Your task to perform on an android device: Go to network settings Image 0: 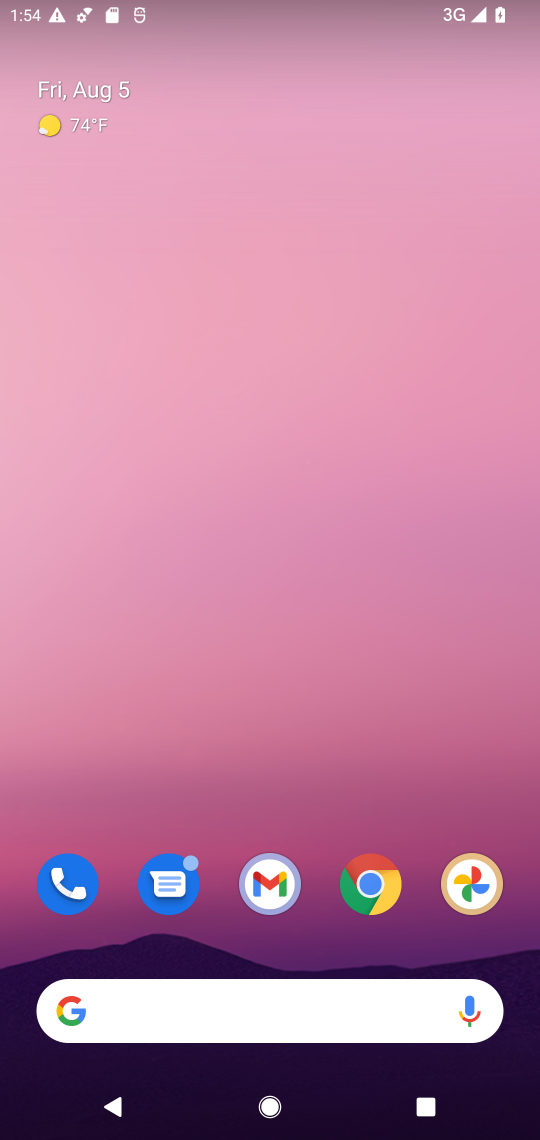
Step 0: drag from (458, 913) to (301, 56)
Your task to perform on an android device: Go to network settings Image 1: 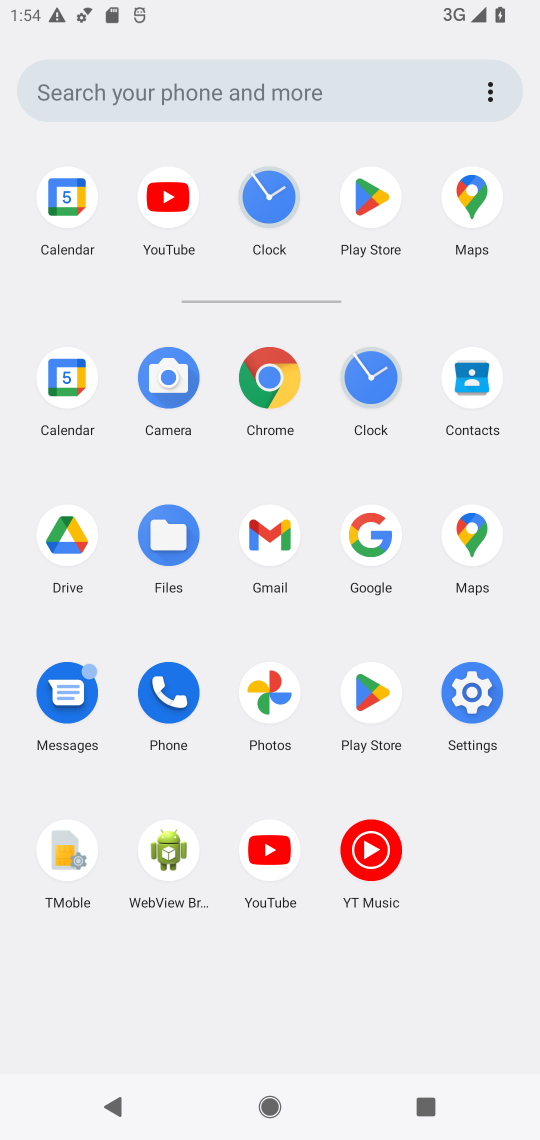
Step 1: click (494, 698)
Your task to perform on an android device: Go to network settings Image 2: 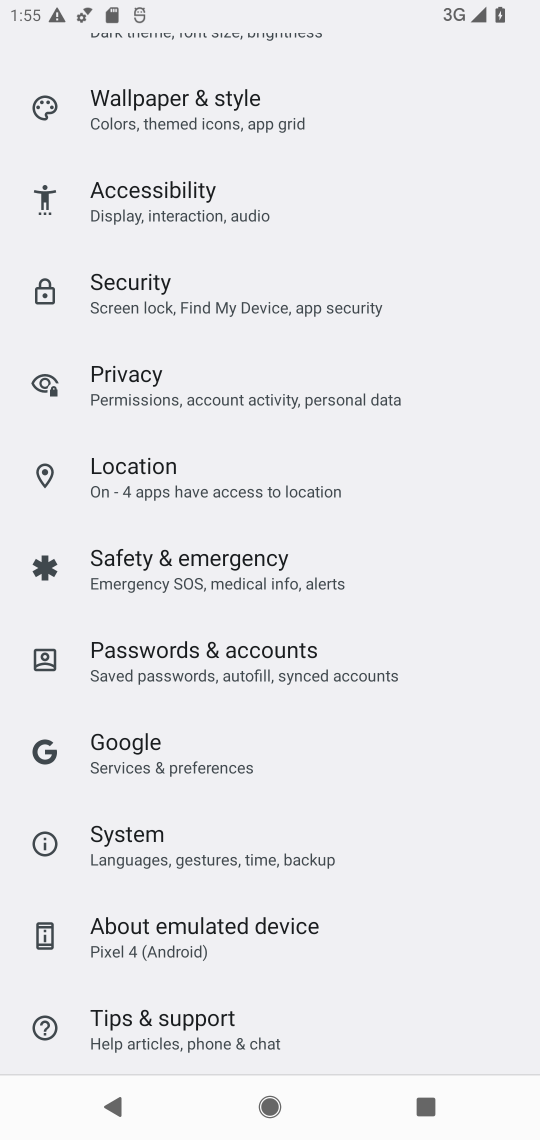
Step 2: drag from (272, 189) to (321, 1069)
Your task to perform on an android device: Go to network settings Image 3: 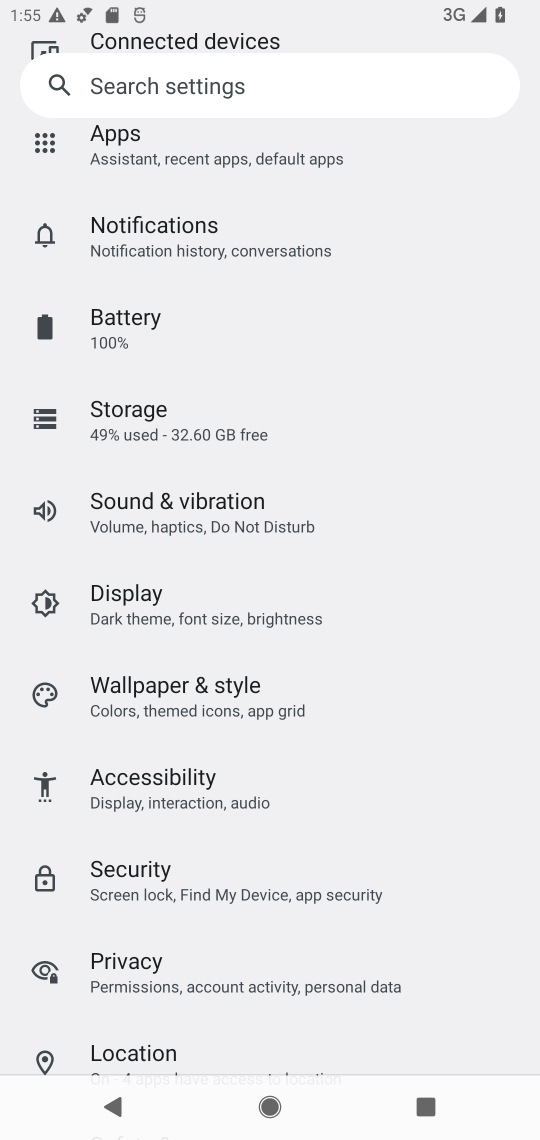
Step 3: drag from (294, 286) to (284, 1060)
Your task to perform on an android device: Go to network settings Image 4: 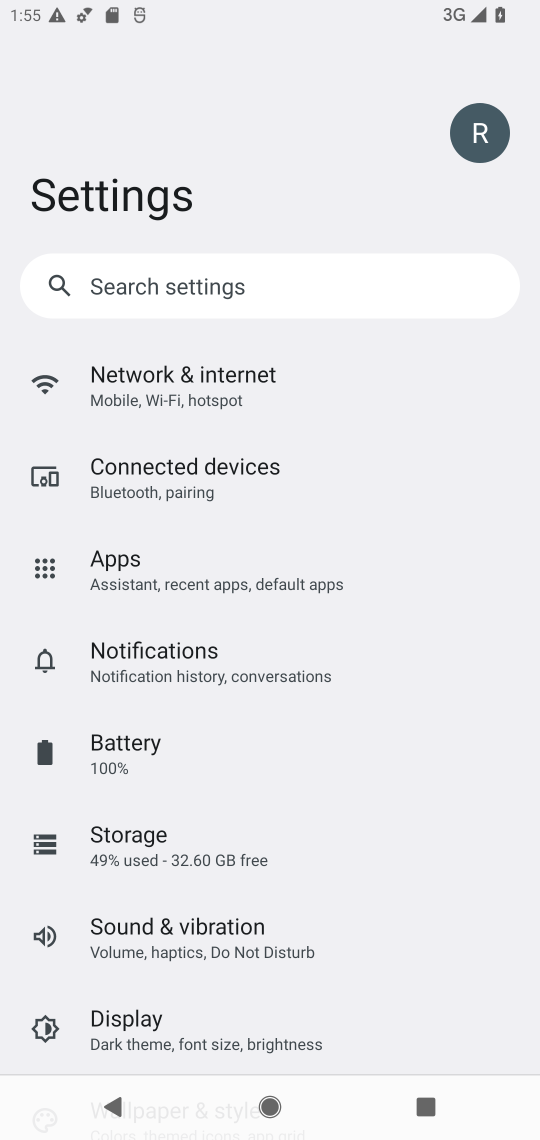
Step 4: click (213, 398)
Your task to perform on an android device: Go to network settings Image 5: 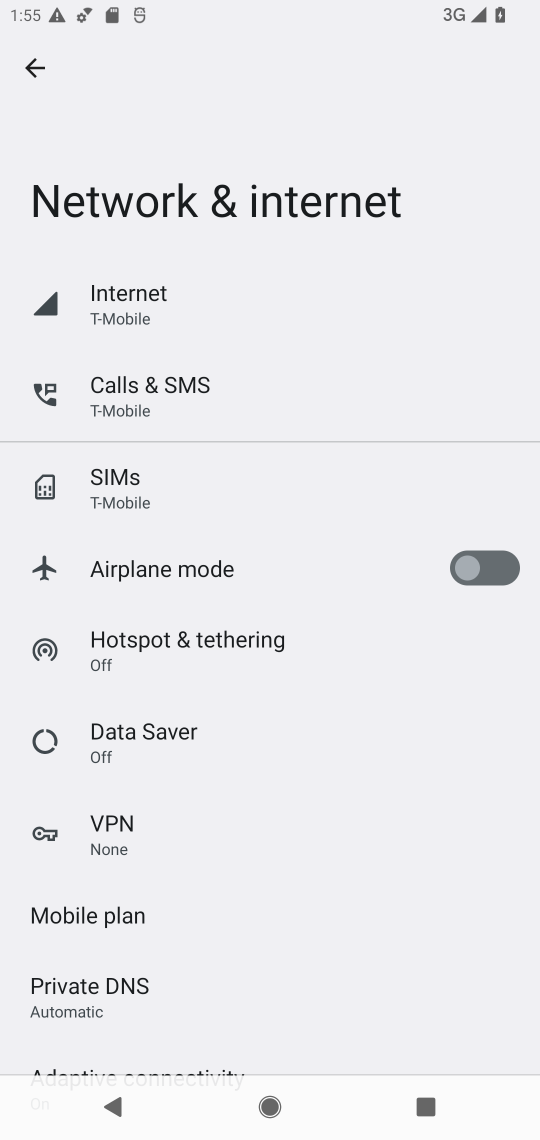
Step 5: task complete